Your task to perform on an android device: open a bookmark in the chrome app Image 0: 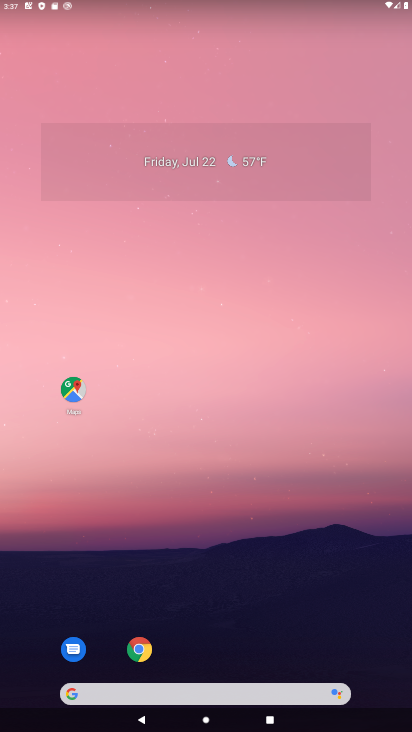
Step 0: click (130, 647)
Your task to perform on an android device: open a bookmark in the chrome app Image 1: 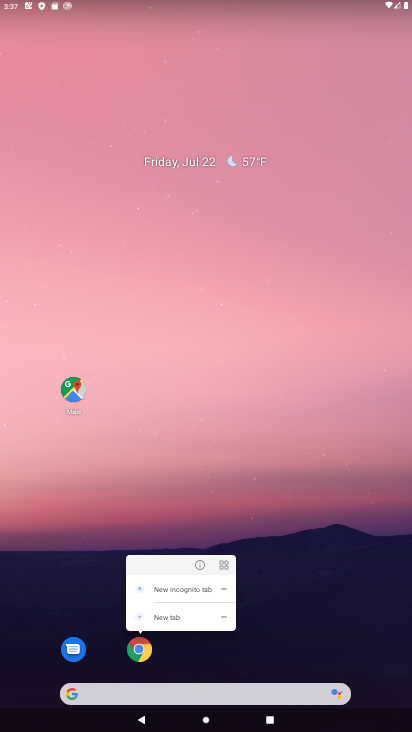
Step 1: click (126, 641)
Your task to perform on an android device: open a bookmark in the chrome app Image 2: 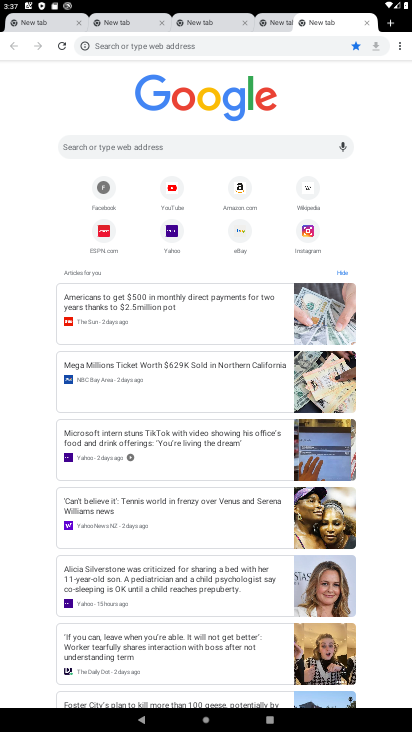
Step 2: click (402, 46)
Your task to perform on an android device: open a bookmark in the chrome app Image 3: 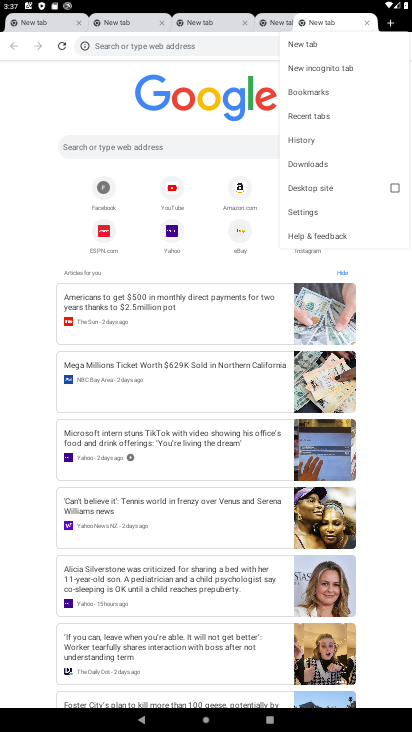
Step 3: click (319, 93)
Your task to perform on an android device: open a bookmark in the chrome app Image 4: 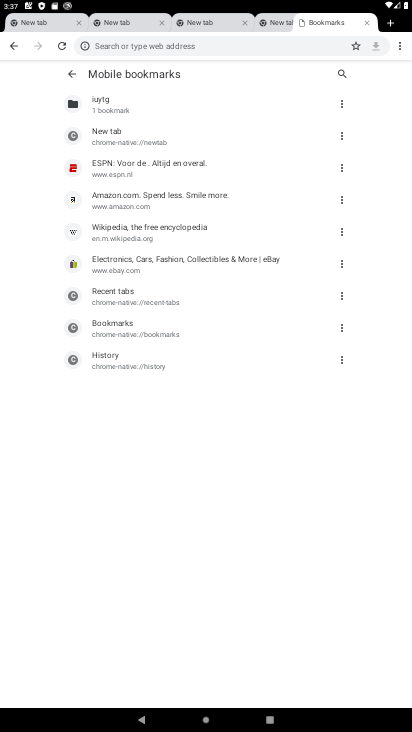
Step 4: task complete